Your task to perform on an android device: stop showing notifications on the lock screen Image 0: 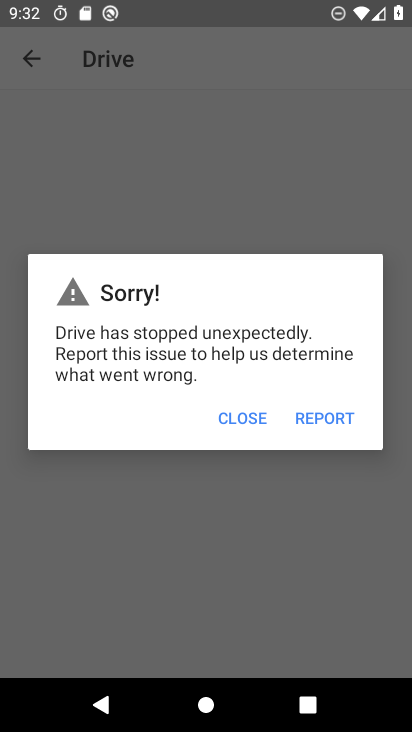
Step 0: press home button
Your task to perform on an android device: stop showing notifications on the lock screen Image 1: 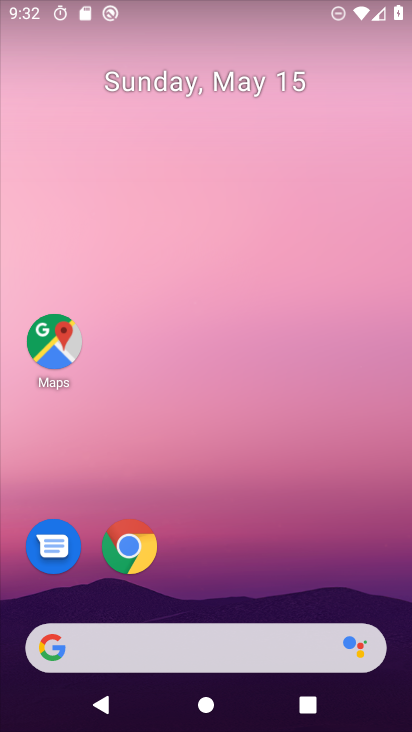
Step 1: drag from (227, 550) to (202, 69)
Your task to perform on an android device: stop showing notifications on the lock screen Image 2: 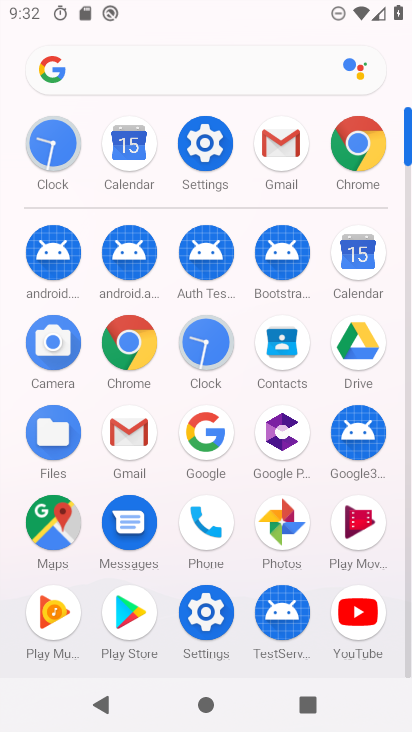
Step 2: click (217, 148)
Your task to perform on an android device: stop showing notifications on the lock screen Image 3: 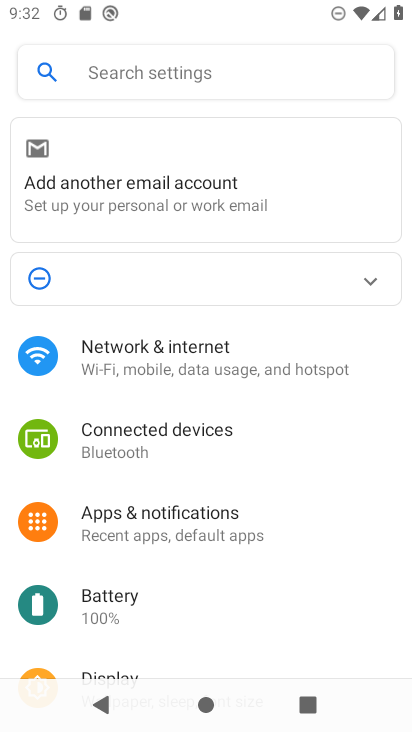
Step 3: click (178, 516)
Your task to perform on an android device: stop showing notifications on the lock screen Image 4: 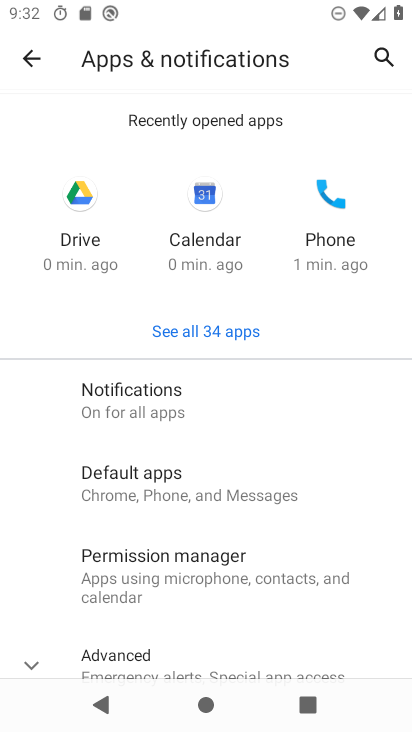
Step 4: click (197, 406)
Your task to perform on an android device: stop showing notifications on the lock screen Image 5: 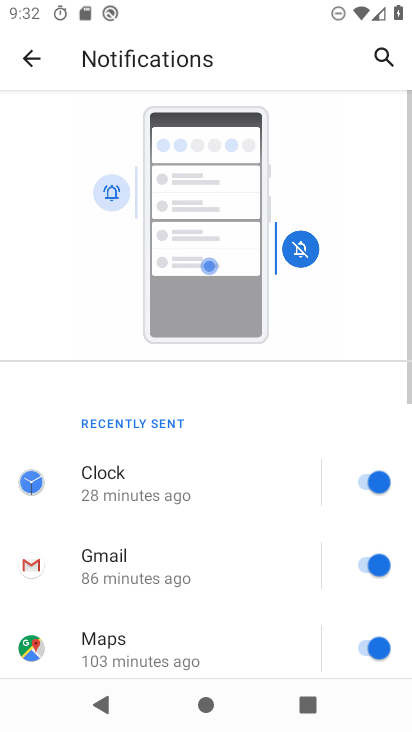
Step 5: task complete